Your task to perform on an android device: What's the weather today? Image 0: 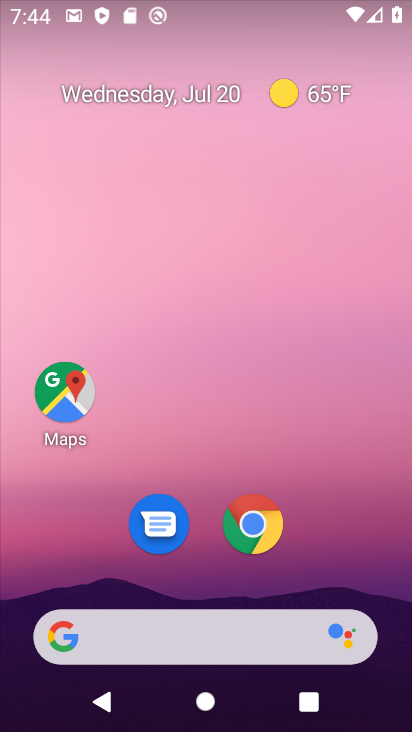
Step 0: drag from (327, 544) to (280, 50)
Your task to perform on an android device: What's the weather today? Image 1: 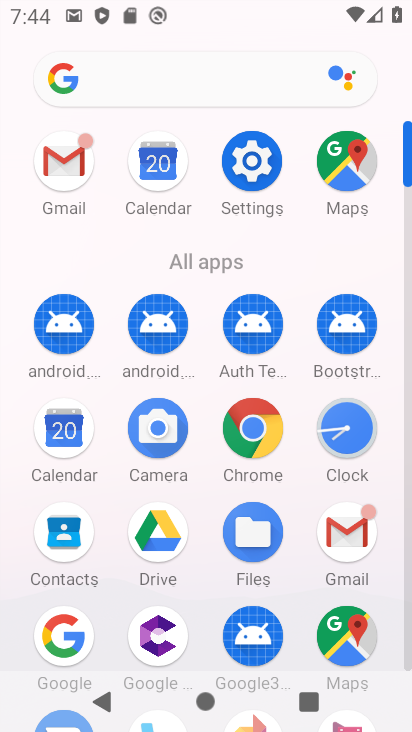
Step 1: click (65, 638)
Your task to perform on an android device: What's the weather today? Image 2: 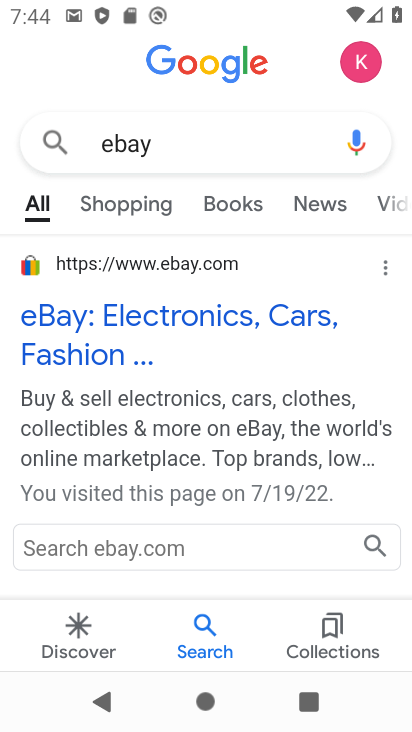
Step 2: click (250, 57)
Your task to perform on an android device: What's the weather today? Image 3: 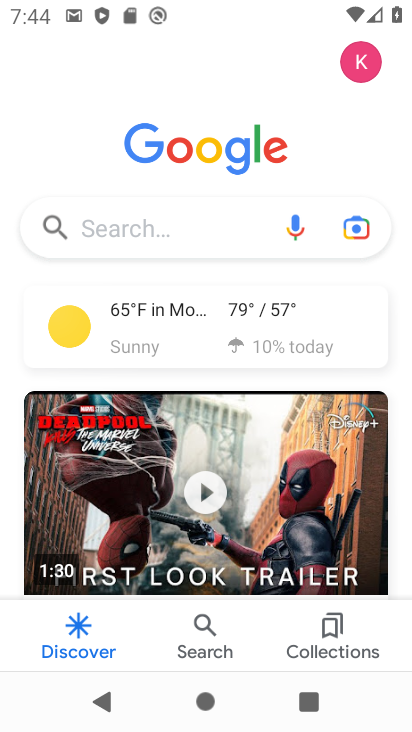
Step 3: click (181, 308)
Your task to perform on an android device: What's the weather today? Image 4: 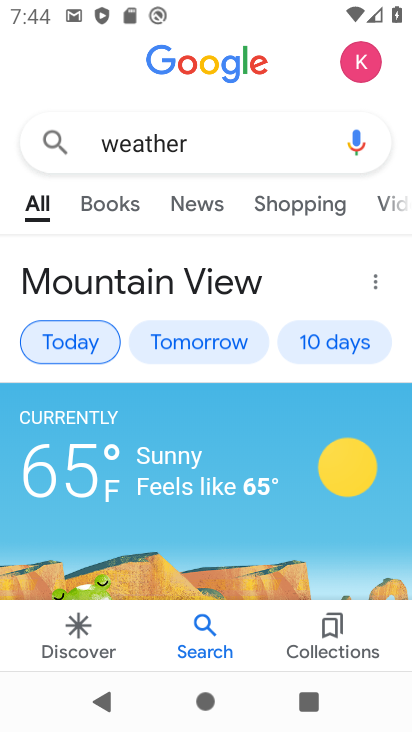
Step 4: click (88, 330)
Your task to perform on an android device: What's the weather today? Image 5: 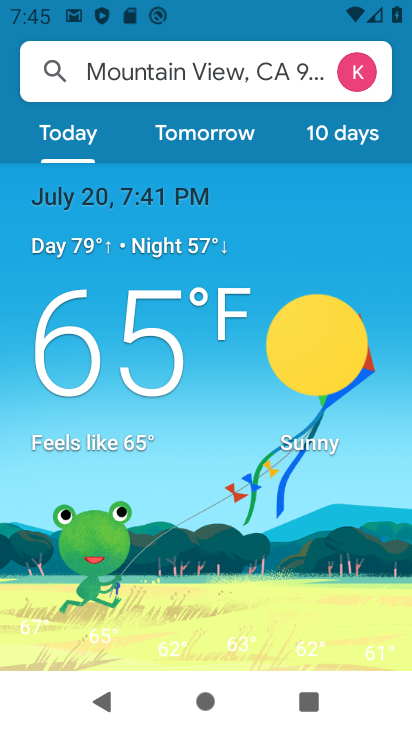
Step 5: task complete